Your task to perform on an android device: Open calendar and show me the fourth week of next month Image 0: 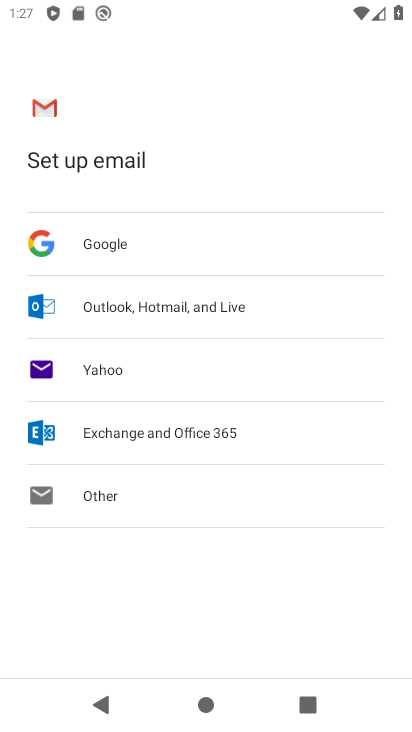
Step 0: press home button
Your task to perform on an android device: Open calendar and show me the fourth week of next month Image 1: 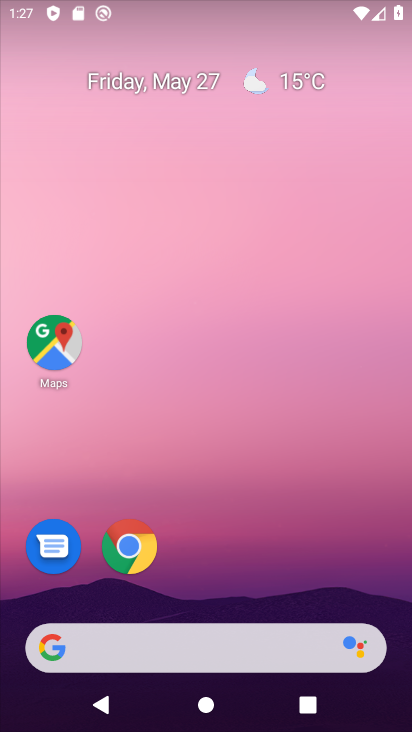
Step 1: drag from (380, 597) to (343, 182)
Your task to perform on an android device: Open calendar and show me the fourth week of next month Image 2: 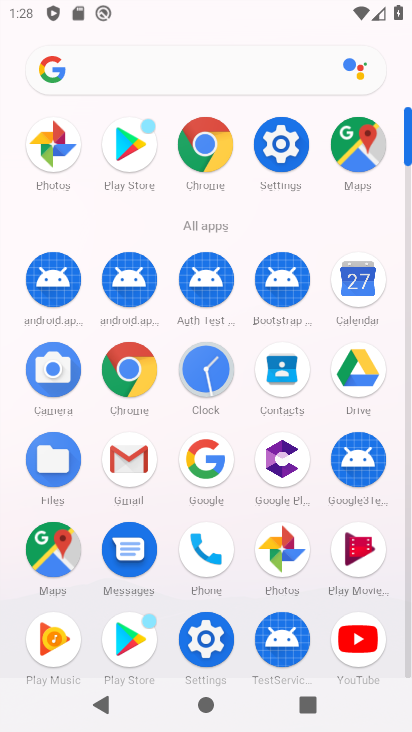
Step 2: click (347, 278)
Your task to perform on an android device: Open calendar and show me the fourth week of next month Image 3: 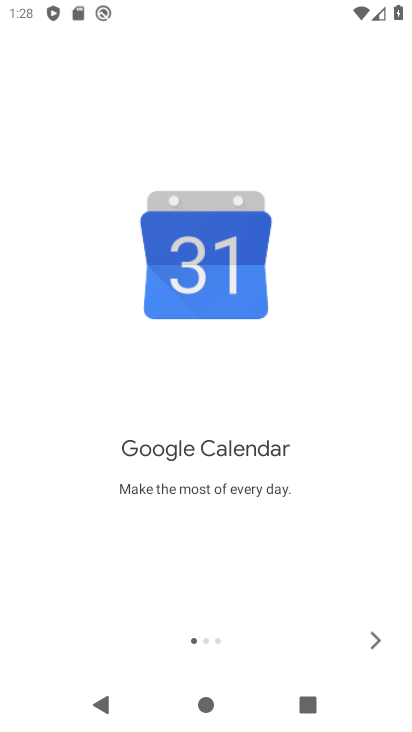
Step 3: click (373, 631)
Your task to perform on an android device: Open calendar and show me the fourth week of next month Image 4: 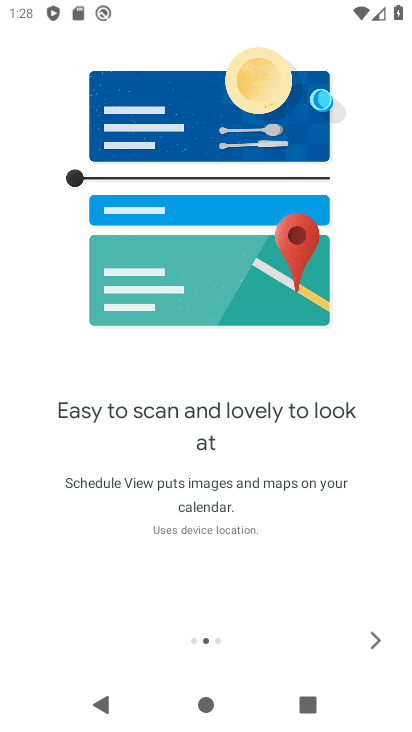
Step 4: click (378, 634)
Your task to perform on an android device: Open calendar and show me the fourth week of next month Image 5: 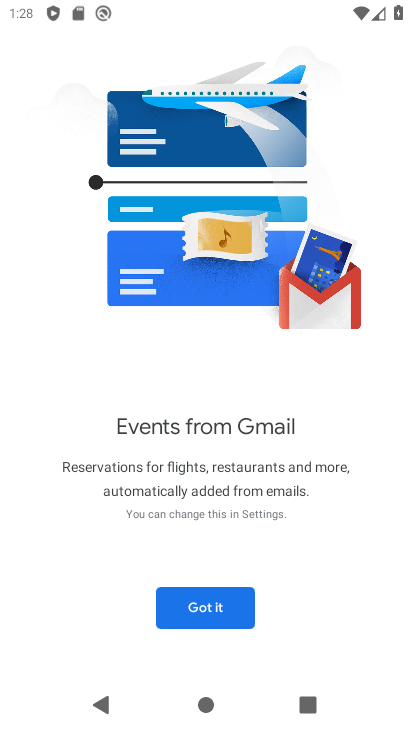
Step 5: click (231, 620)
Your task to perform on an android device: Open calendar and show me the fourth week of next month Image 6: 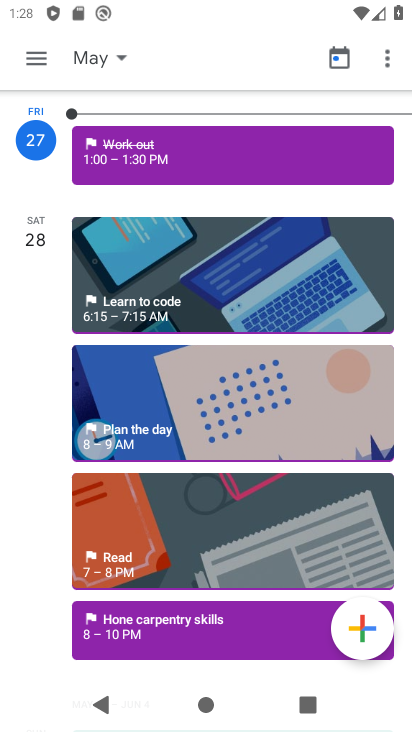
Step 6: click (85, 62)
Your task to perform on an android device: Open calendar and show me the fourth week of next month Image 7: 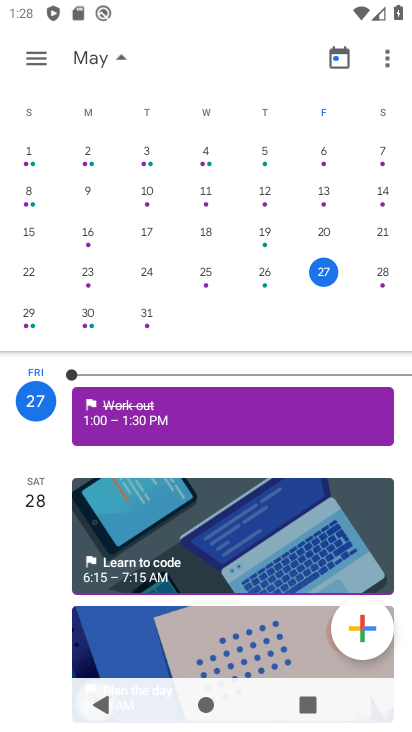
Step 7: drag from (312, 201) to (6, 183)
Your task to perform on an android device: Open calendar and show me the fourth week of next month Image 8: 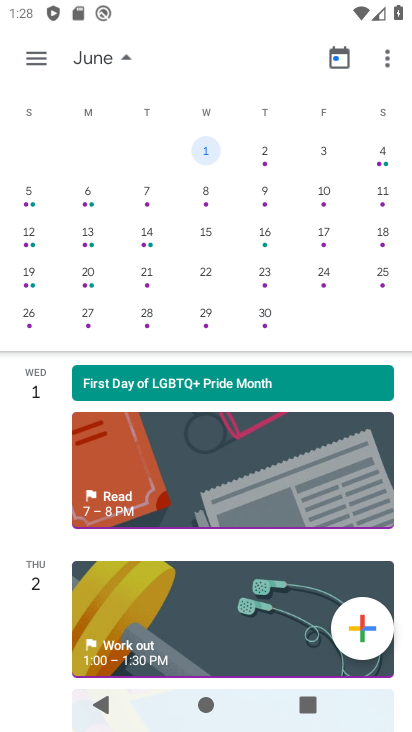
Step 8: click (33, 277)
Your task to perform on an android device: Open calendar and show me the fourth week of next month Image 9: 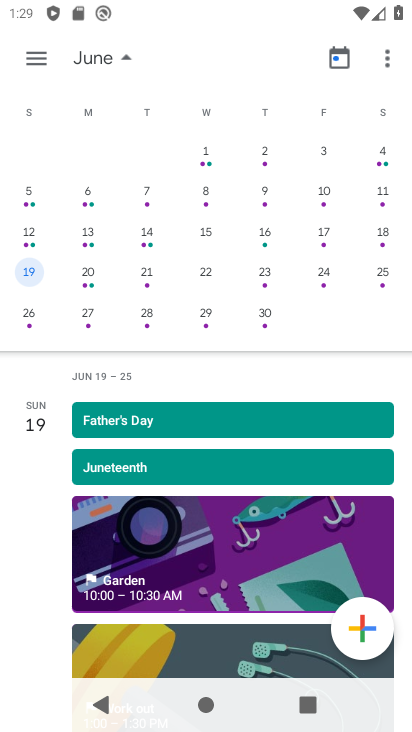
Step 9: task complete